Your task to perform on an android device: Open the Play Movies app and select the watchlist tab. Image 0: 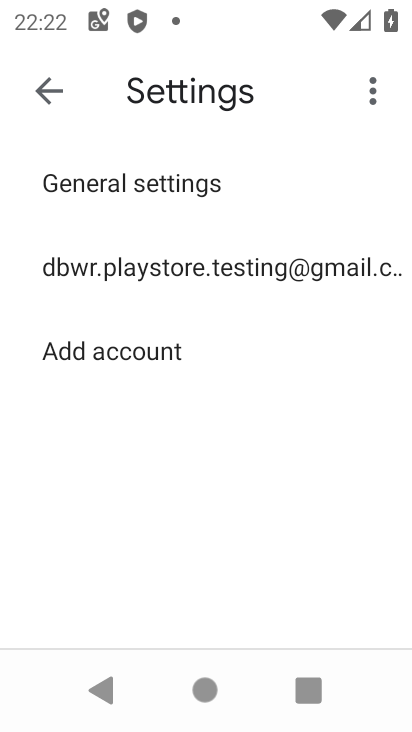
Step 0: press home button
Your task to perform on an android device: Open the Play Movies app and select the watchlist tab. Image 1: 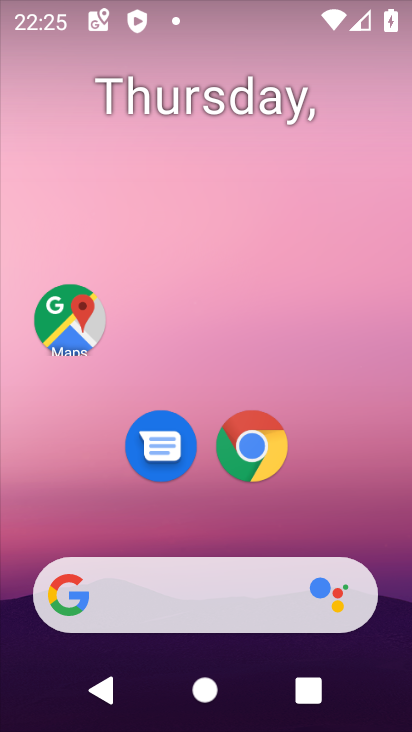
Step 1: drag from (334, 500) to (318, 85)
Your task to perform on an android device: Open the Play Movies app and select the watchlist tab. Image 2: 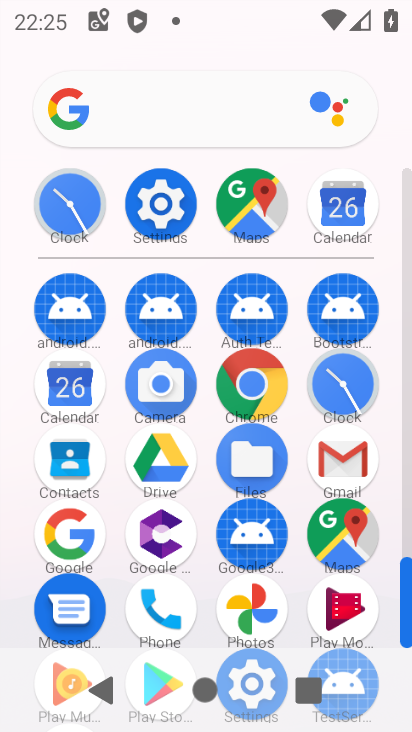
Step 2: click (340, 595)
Your task to perform on an android device: Open the Play Movies app and select the watchlist tab. Image 3: 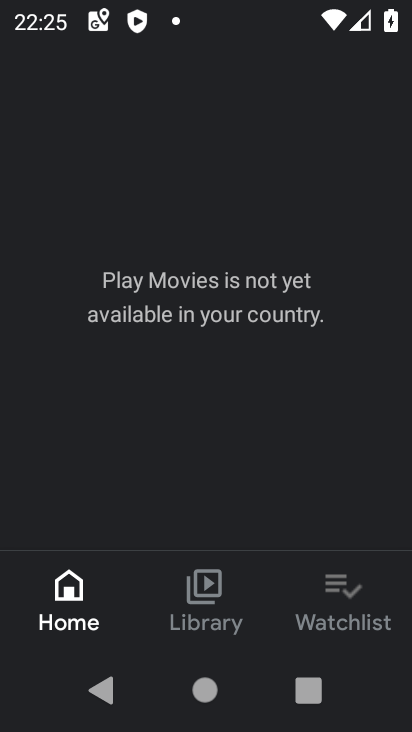
Step 3: click (337, 613)
Your task to perform on an android device: Open the Play Movies app and select the watchlist tab. Image 4: 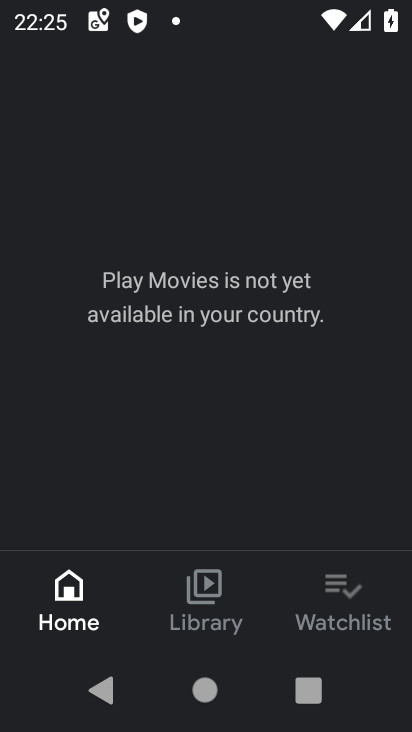
Step 4: click (337, 613)
Your task to perform on an android device: Open the Play Movies app and select the watchlist tab. Image 5: 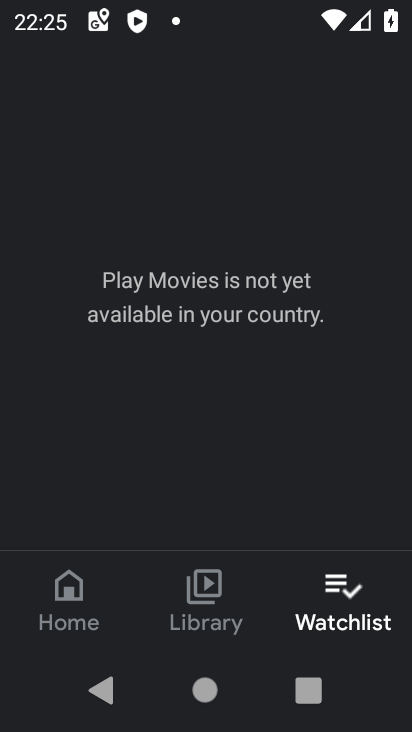
Step 5: click (337, 613)
Your task to perform on an android device: Open the Play Movies app and select the watchlist tab. Image 6: 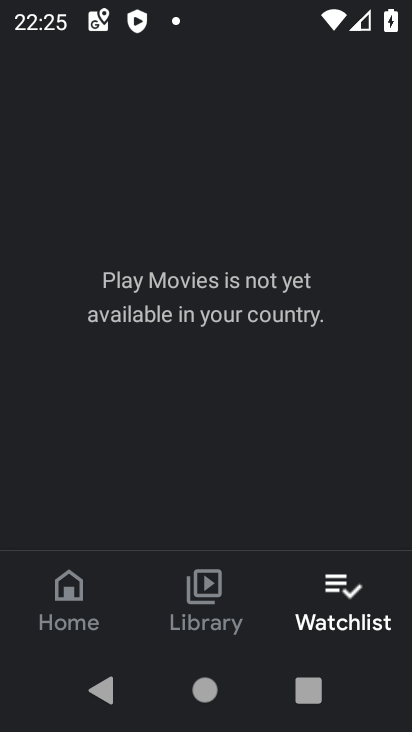
Step 6: click (337, 614)
Your task to perform on an android device: Open the Play Movies app and select the watchlist tab. Image 7: 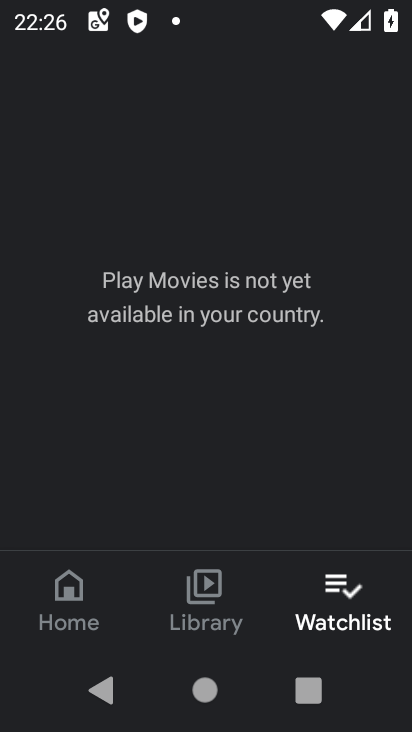
Step 7: task complete